Your task to perform on an android device: Go to location settings Image 0: 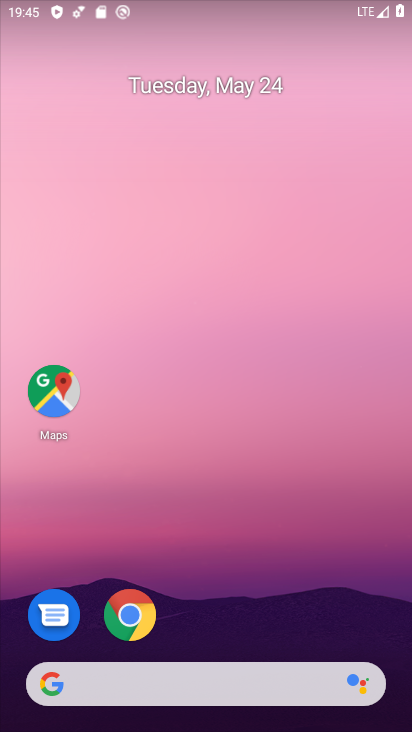
Step 0: drag from (220, 563) to (307, 206)
Your task to perform on an android device: Go to location settings Image 1: 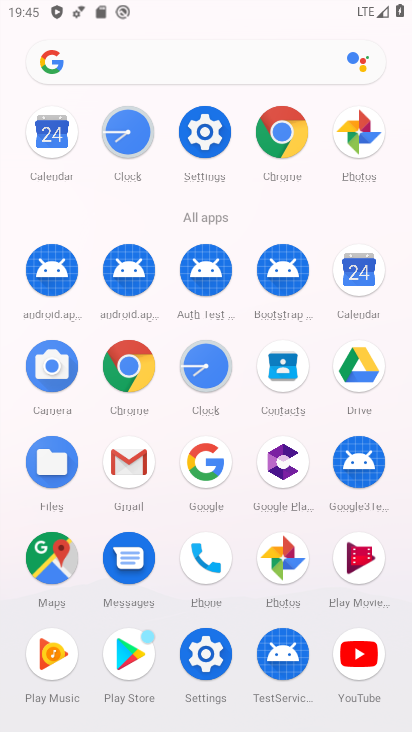
Step 1: click (216, 128)
Your task to perform on an android device: Go to location settings Image 2: 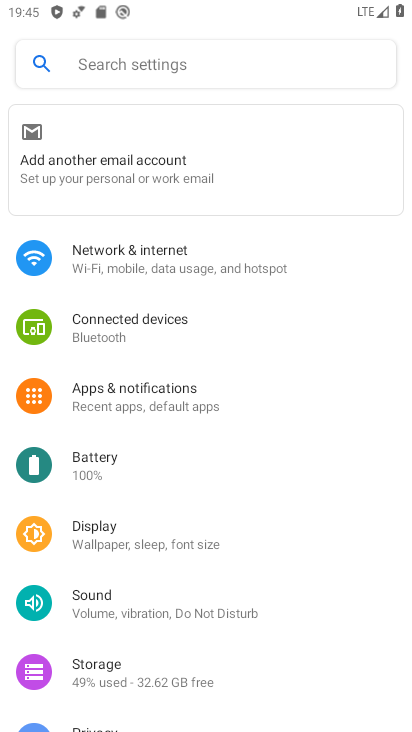
Step 2: drag from (150, 509) to (185, 345)
Your task to perform on an android device: Go to location settings Image 3: 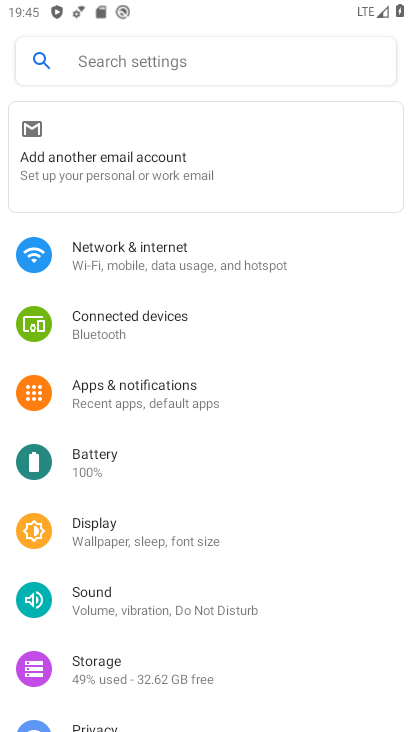
Step 3: click (185, 430)
Your task to perform on an android device: Go to location settings Image 4: 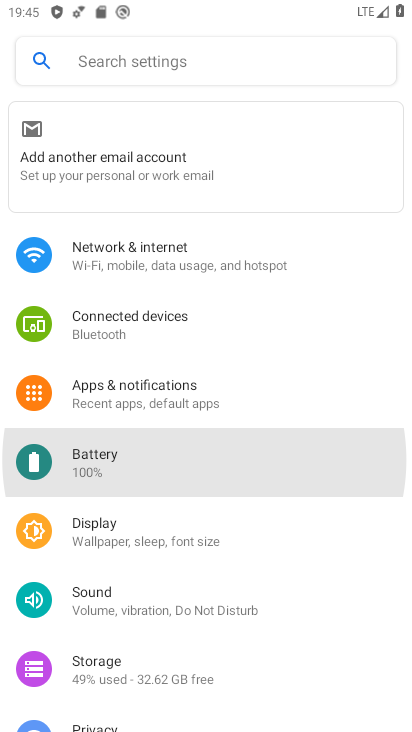
Step 4: drag from (171, 704) to (226, 427)
Your task to perform on an android device: Go to location settings Image 5: 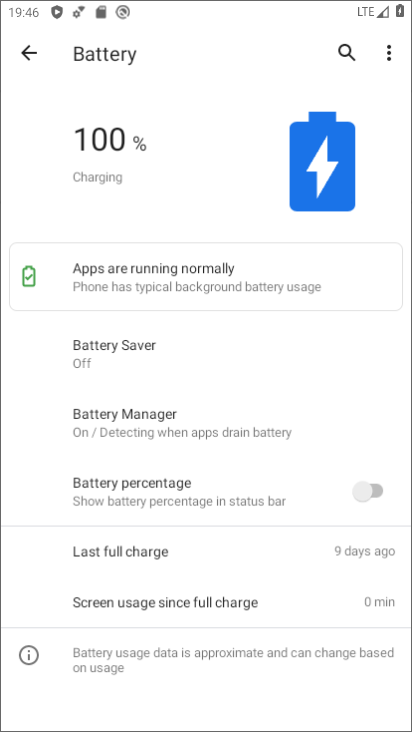
Step 5: drag from (179, 586) to (209, 234)
Your task to perform on an android device: Go to location settings Image 6: 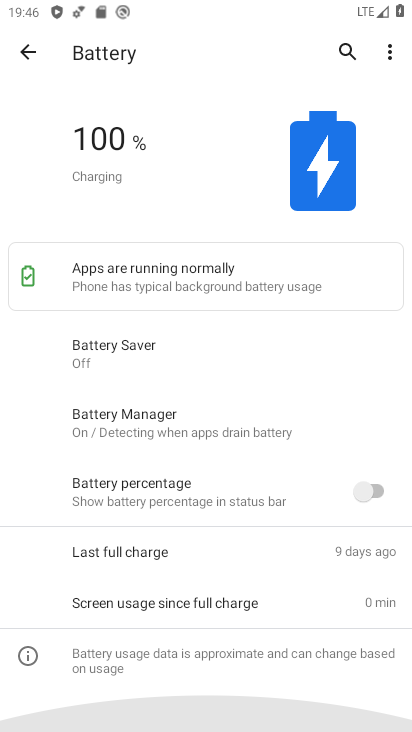
Step 6: drag from (160, 453) to (174, 298)
Your task to perform on an android device: Go to location settings Image 7: 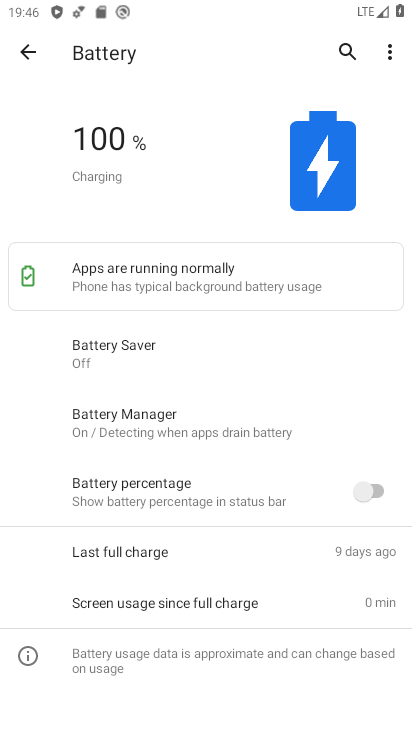
Step 7: click (11, 52)
Your task to perform on an android device: Go to location settings Image 8: 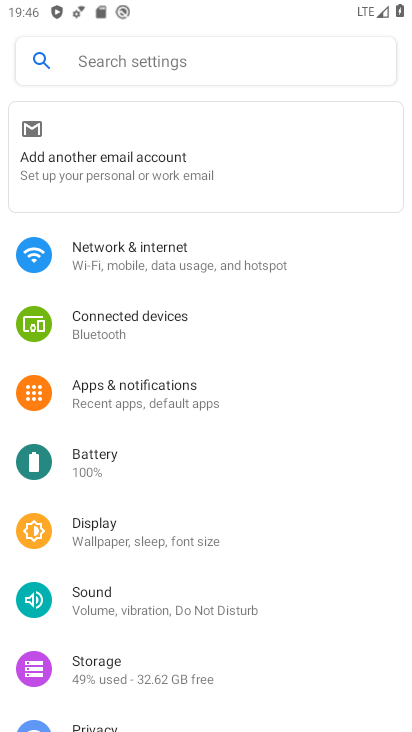
Step 8: drag from (174, 594) to (298, 184)
Your task to perform on an android device: Go to location settings Image 9: 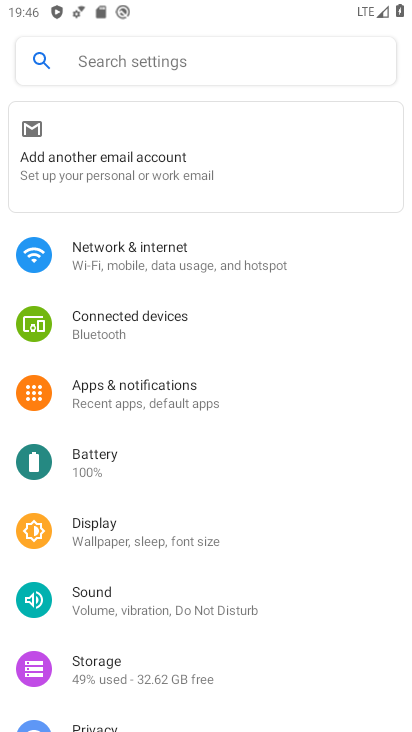
Step 9: drag from (161, 535) to (236, 316)
Your task to perform on an android device: Go to location settings Image 10: 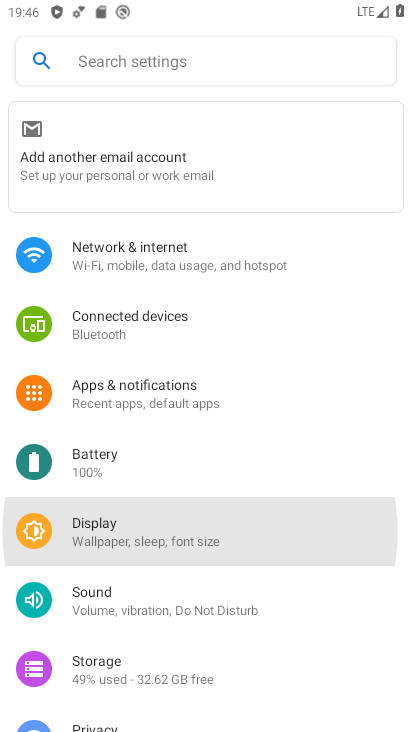
Step 10: drag from (182, 545) to (265, 316)
Your task to perform on an android device: Go to location settings Image 11: 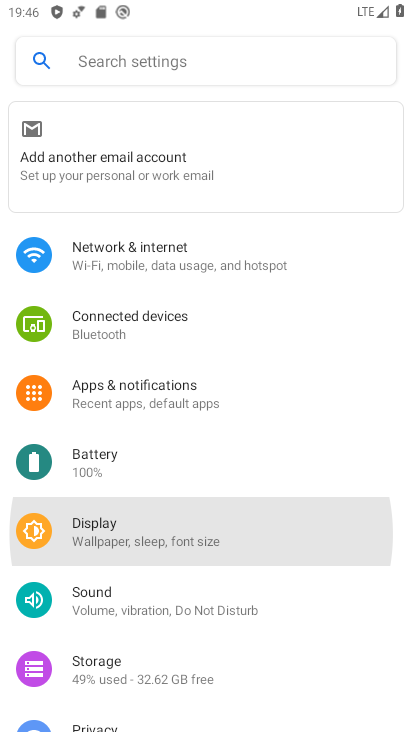
Step 11: drag from (169, 611) to (264, 310)
Your task to perform on an android device: Go to location settings Image 12: 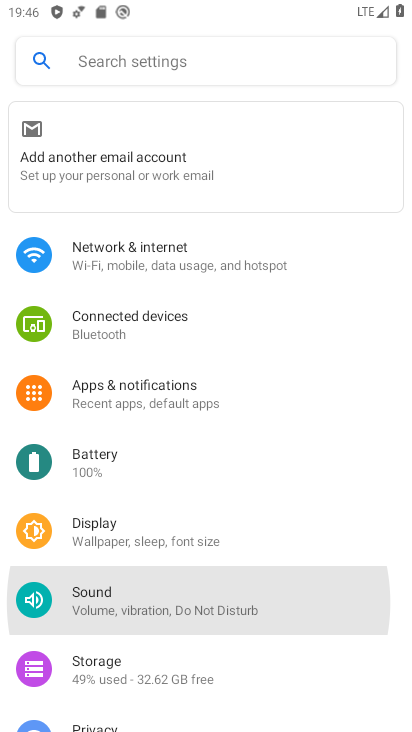
Step 12: drag from (181, 585) to (253, 342)
Your task to perform on an android device: Go to location settings Image 13: 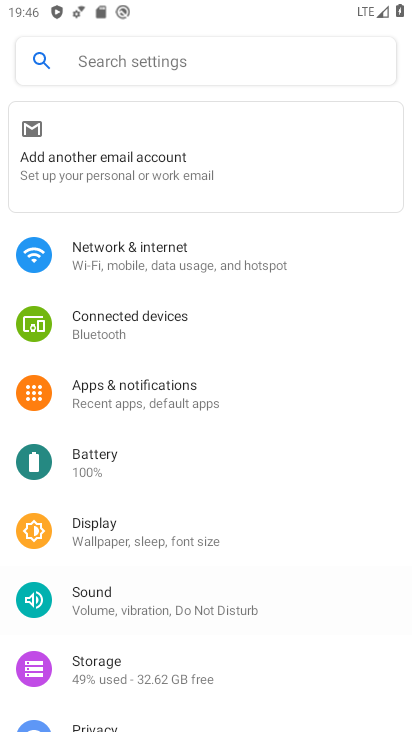
Step 13: drag from (236, 559) to (236, 378)
Your task to perform on an android device: Go to location settings Image 14: 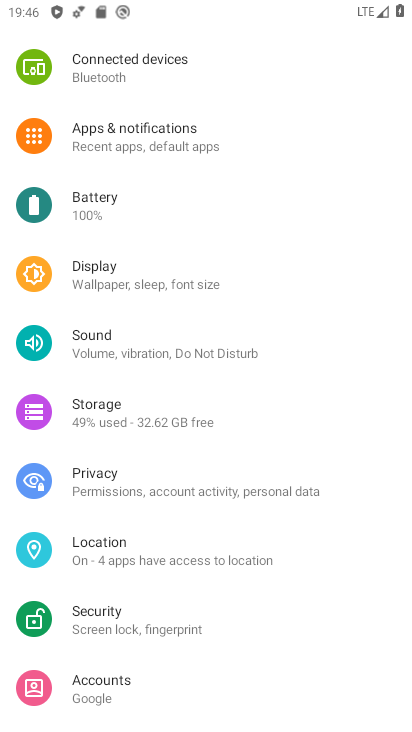
Step 14: drag from (222, 619) to (266, 304)
Your task to perform on an android device: Go to location settings Image 15: 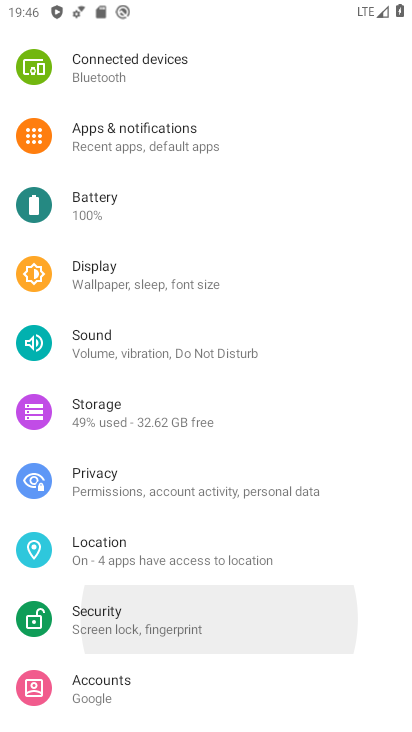
Step 15: drag from (231, 636) to (288, 320)
Your task to perform on an android device: Go to location settings Image 16: 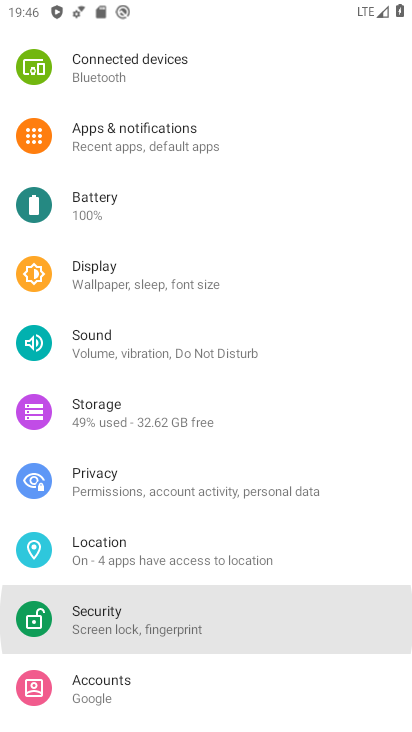
Step 16: drag from (277, 477) to (287, 370)
Your task to perform on an android device: Go to location settings Image 17: 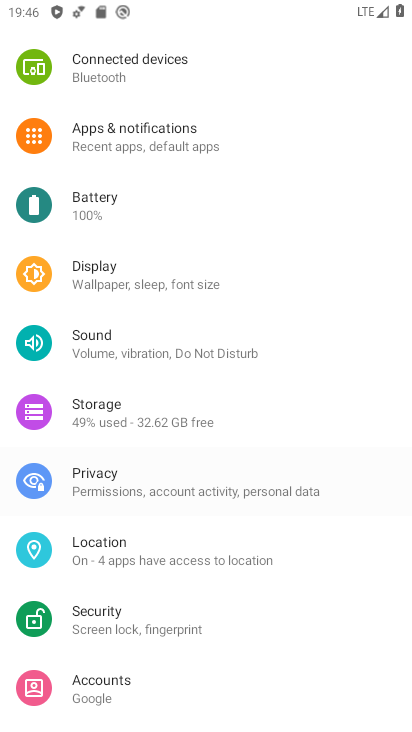
Step 17: click (151, 553)
Your task to perform on an android device: Go to location settings Image 18: 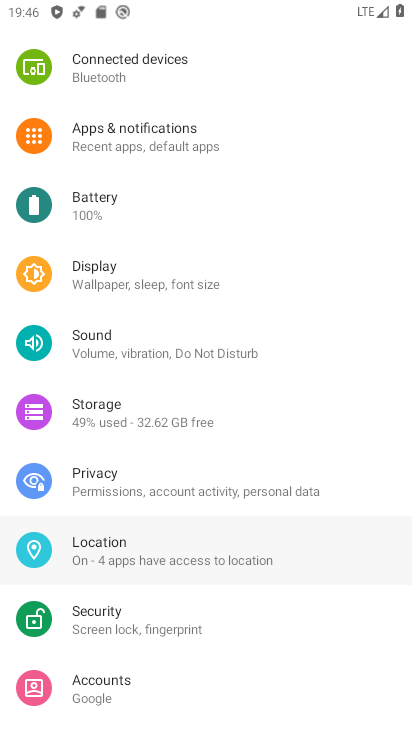
Step 18: click (151, 553)
Your task to perform on an android device: Go to location settings Image 19: 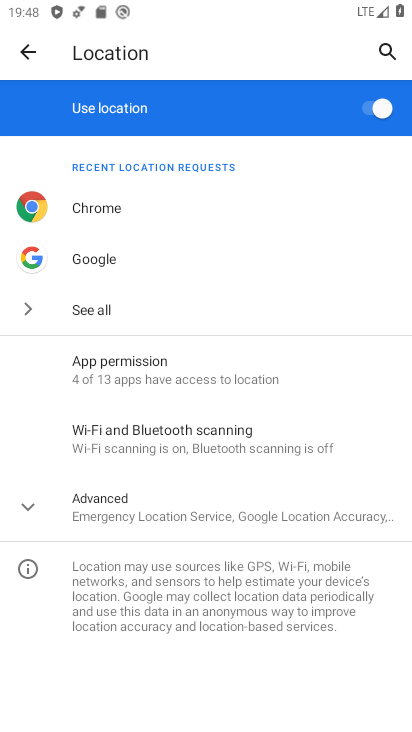
Step 19: task complete